Your task to perform on an android device: toggle airplane mode Image 0: 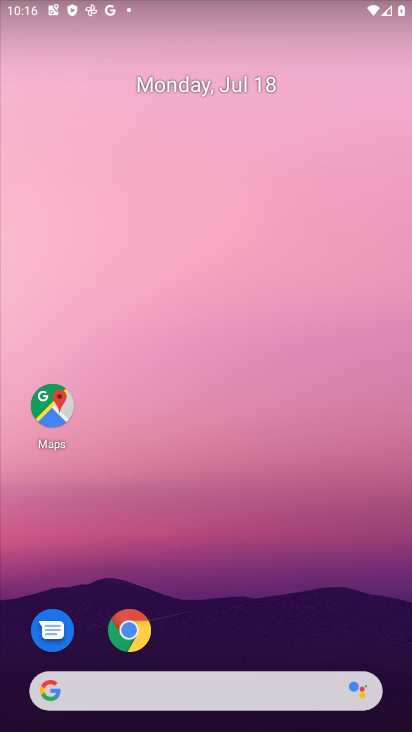
Step 0: drag from (289, 403) to (182, 101)
Your task to perform on an android device: toggle airplane mode Image 1: 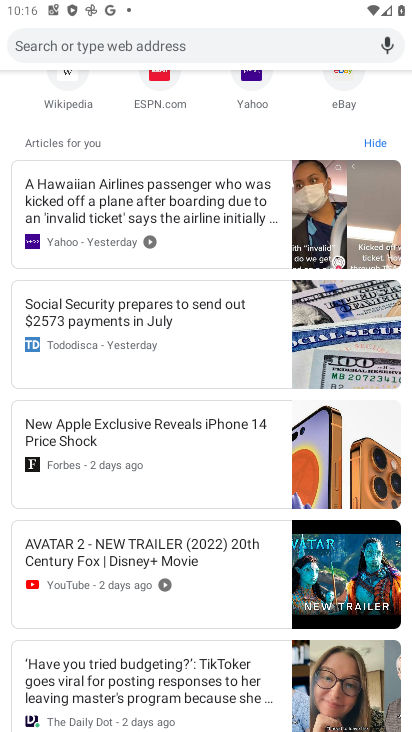
Step 1: press home button
Your task to perform on an android device: toggle airplane mode Image 2: 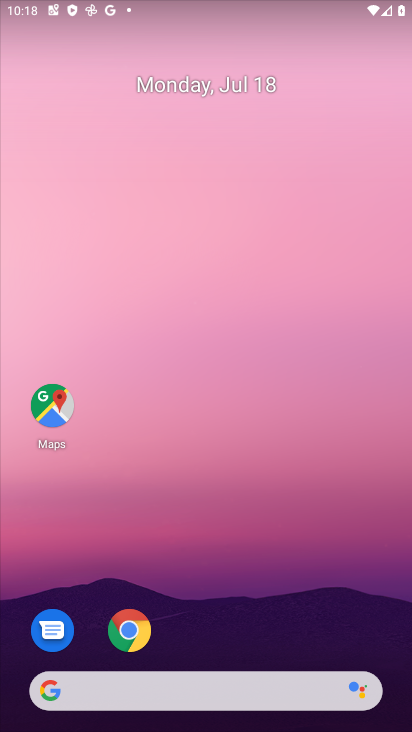
Step 2: drag from (275, 11) to (324, 590)
Your task to perform on an android device: toggle airplane mode Image 3: 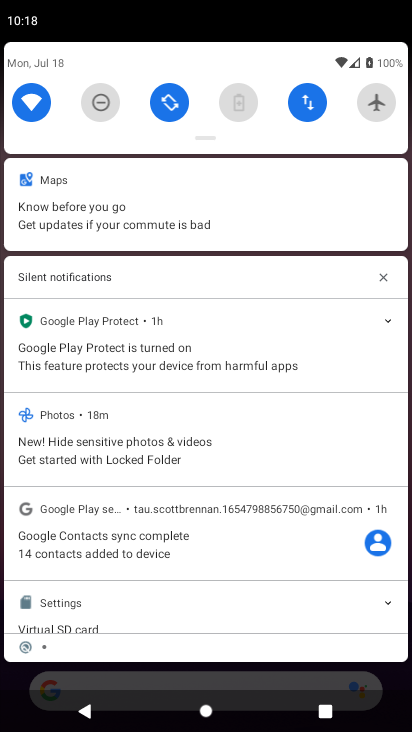
Step 3: click (372, 107)
Your task to perform on an android device: toggle airplane mode Image 4: 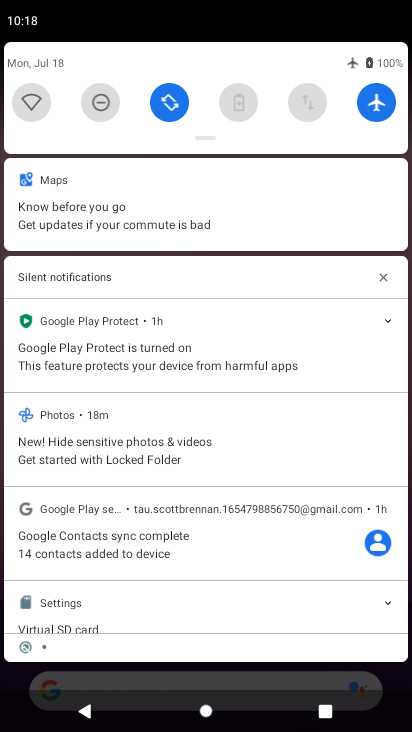
Step 4: task complete